Your task to perform on an android device: toggle airplane mode Image 0: 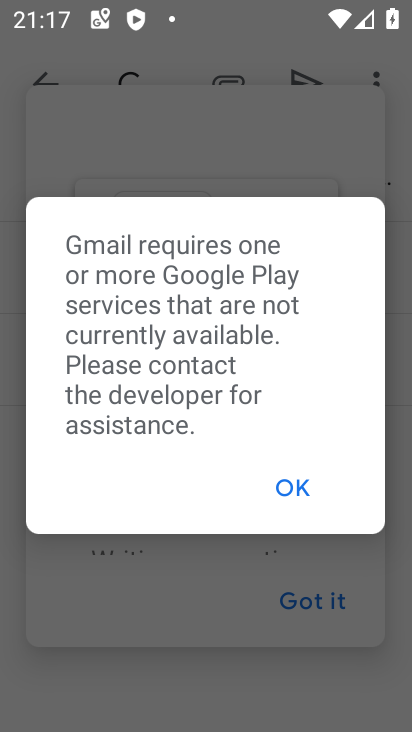
Step 0: drag from (214, 9) to (189, 604)
Your task to perform on an android device: toggle airplane mode Image 1: 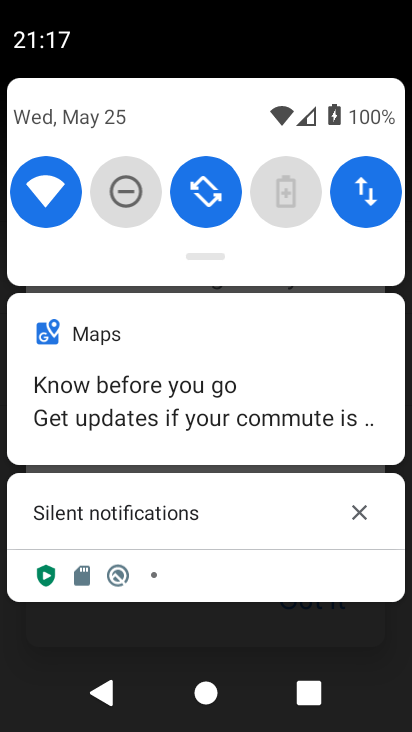
Step 1: drag from (209, 115) to (242, 610)
Your task to perform on an android device: toggle airplane mode Image 2: 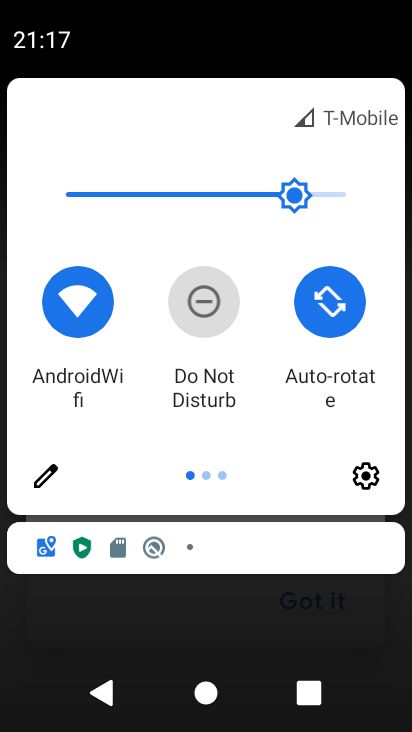
Step 2: drag from (380, 394) to (37, 415)
Your task to perform on an android device: toggle airplane mode Image 3: 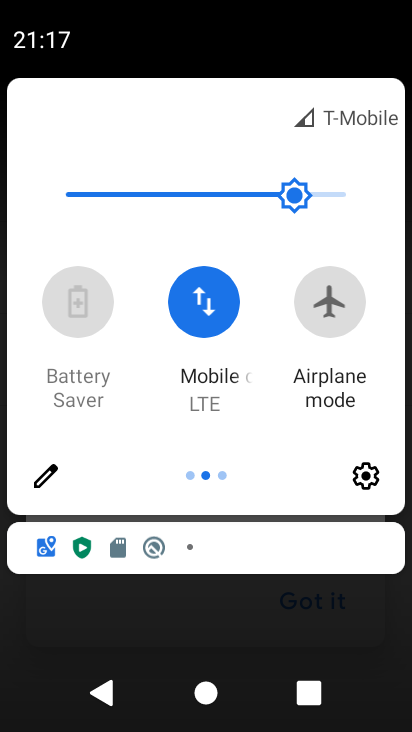
Step 3: click (336, 316)
Your task to perform on an android device: toggle airplane mode Image 4: 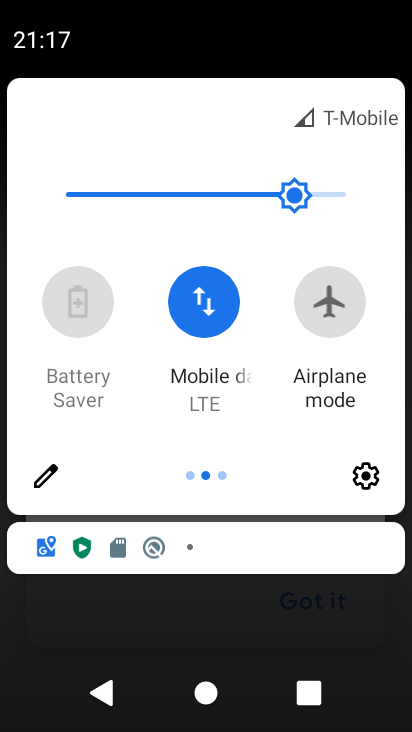
Step 4: click (336, 316)
Your task to perform on an android device: toggle airplane mode Image 5: 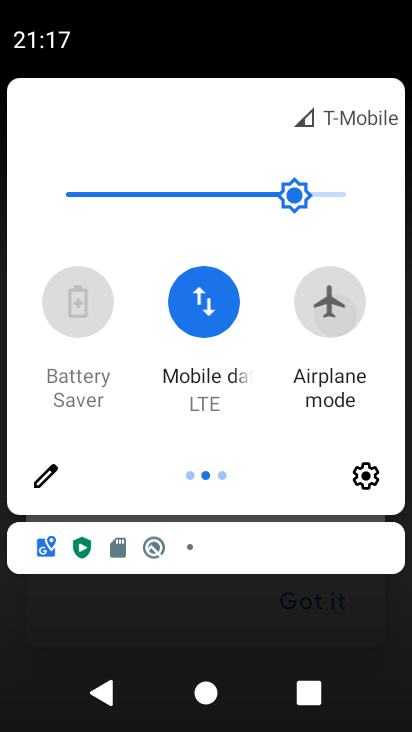
Step 5: click (336, 316)
Your task to perform on an android device: toggle airplane mode Image 6: 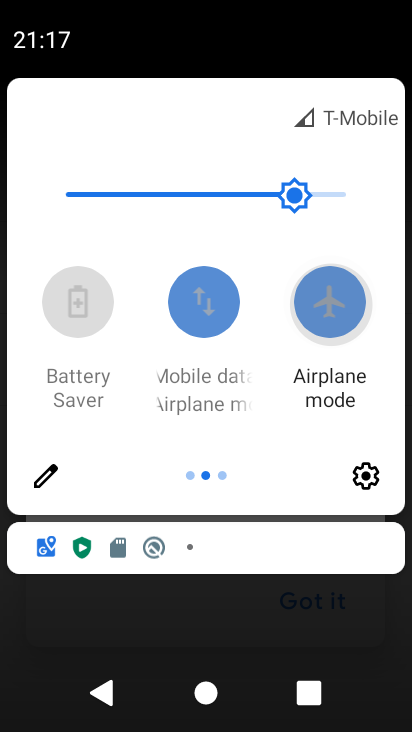
Step 6: click (336, 316)
Your task to perform on an android device: toggle airplane mode Image 7: 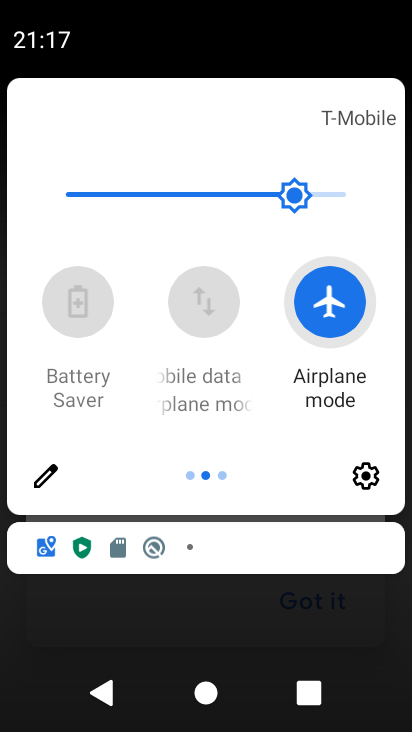
Step 7: click (336, 316)
Your task to perform on an android device: toggle airplane mode Image 8: 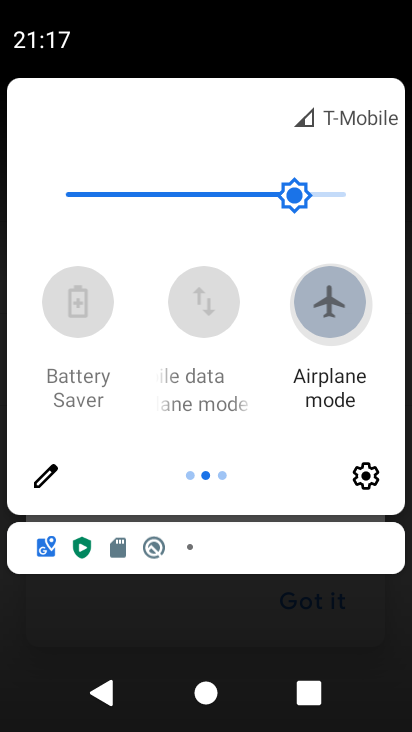
Step 8: click (336, 316)
Your task to perform on an android device: toggle airplane mode Image 9: 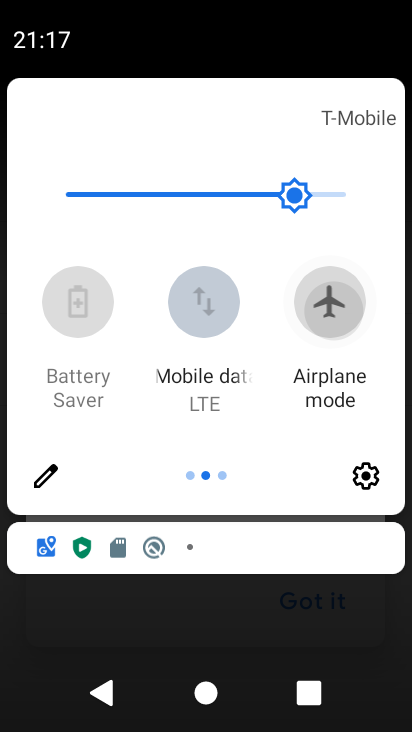
Step 9: click (336, 316)
Your task to perform on an android device: toggle airplane mode Image 10: 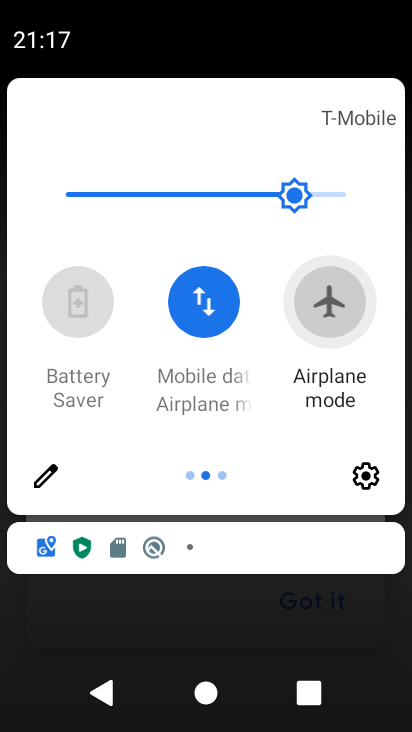
Step 10: click (336, 316)
Your task to perform on an android device: toggle airplane mode Image 11: 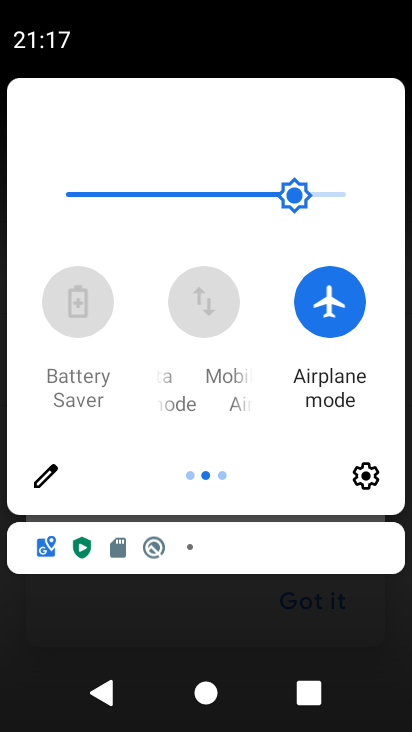
Step 11: click (336, 316)
Your task to perform on an android device: toggle airplane mode Image 12: 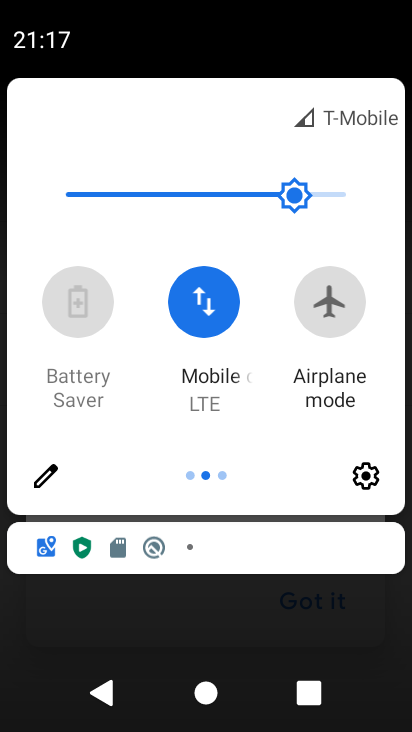
Step 12: task complete